Your task to perform on an android device: install app "The Home Depot" Image 0: 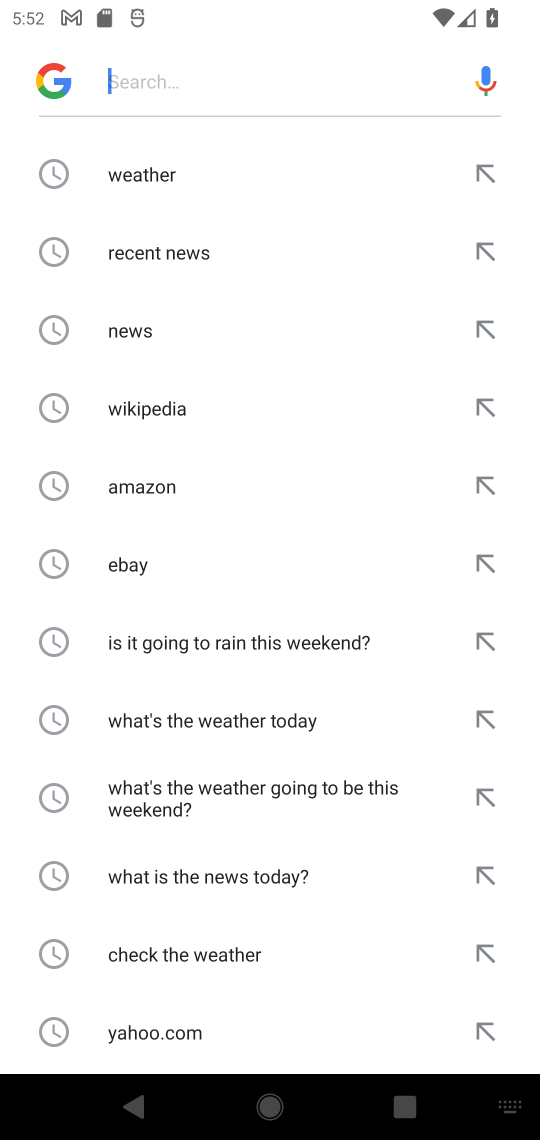
Step 0: press back button
Your task to perform on an android device: install app "The Home Depot" Image 1: 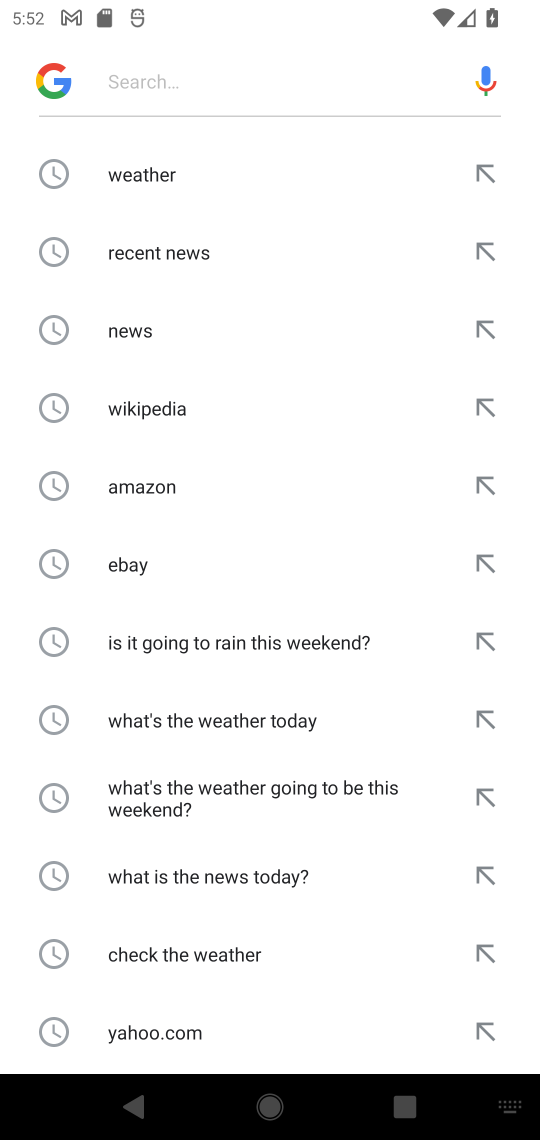
Step 1: press back button
Your task to perform on an android device: install app "The Home Depot" Image 2: 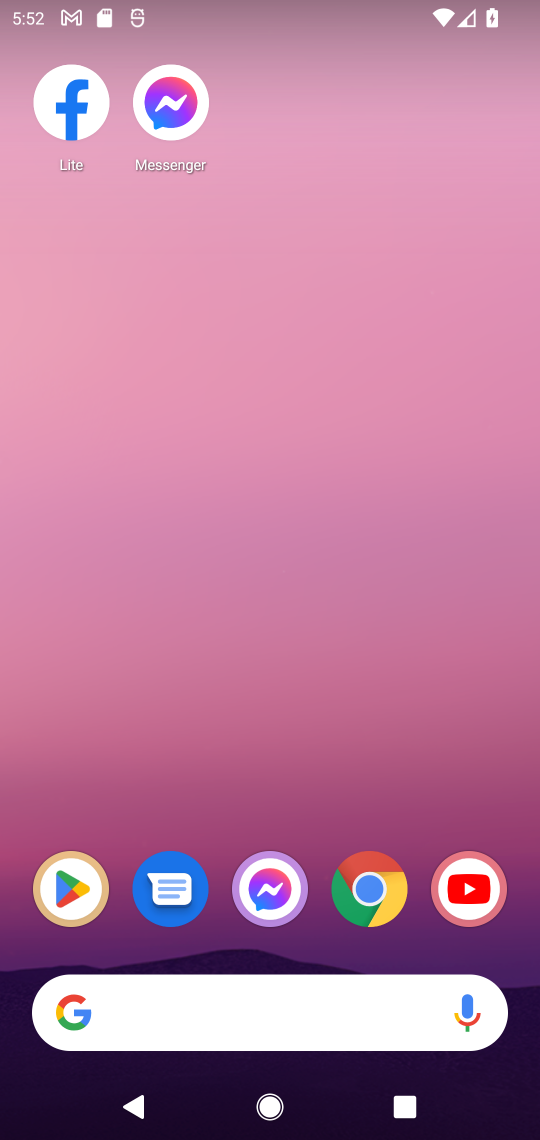
Step 2: drag from (293, 665) to (280, 150)
Your task to perform on an android device: install app "The Home Depot" Image 3: 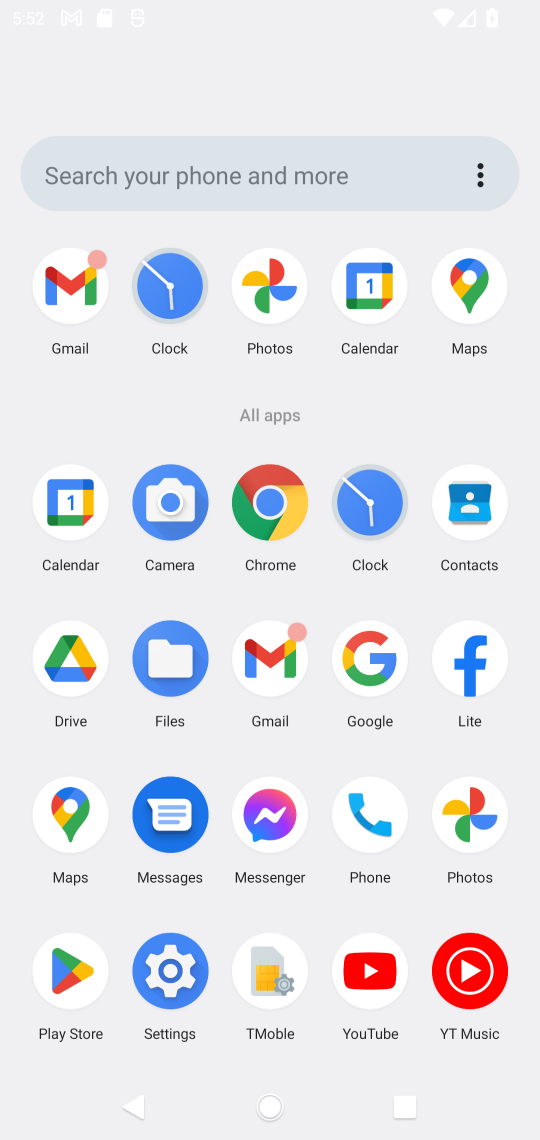
Step 3: drag from (269, 666) to (81, 74)
Your task to perform on an android device: install app "The Home Depot" Image 4: 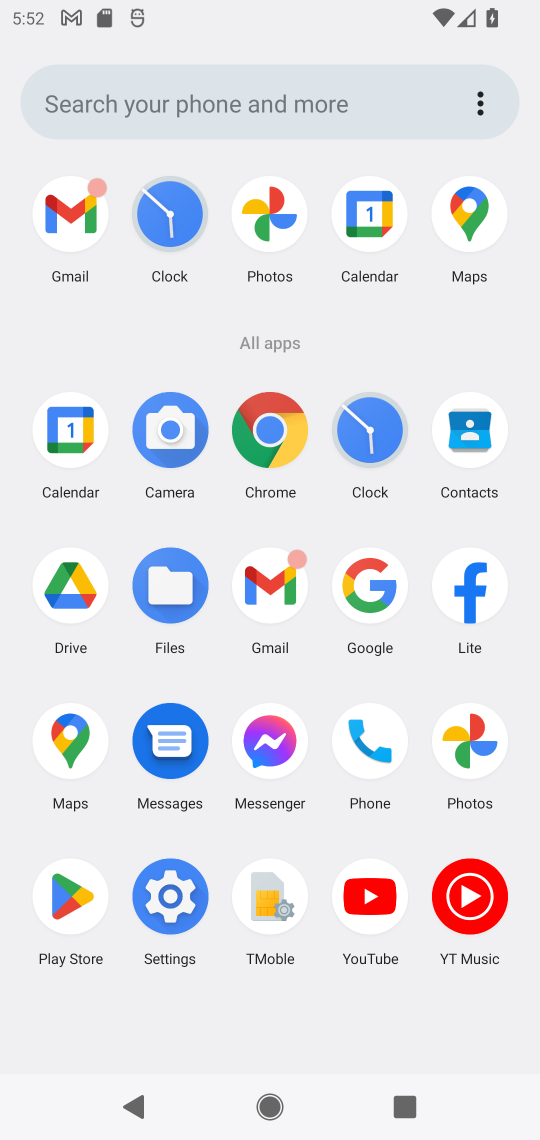
Step 4: click (108, 109)
Your task to perform on an android device: install app "The Home Depot" Image 5: 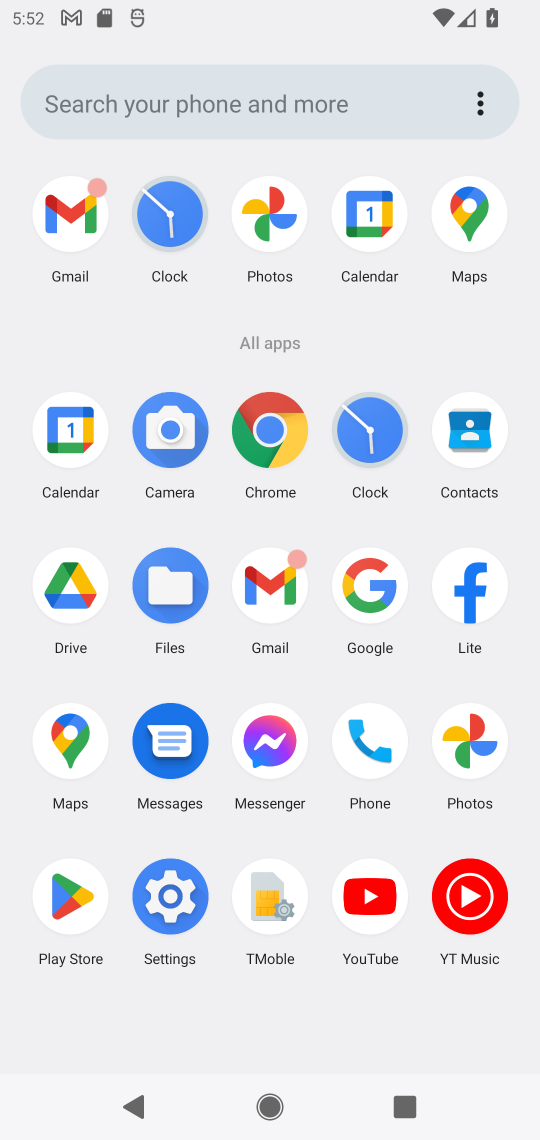
Step 5: click (134, 94)
Your task to perform on an android device: install app "The Home Depot" Image 6: 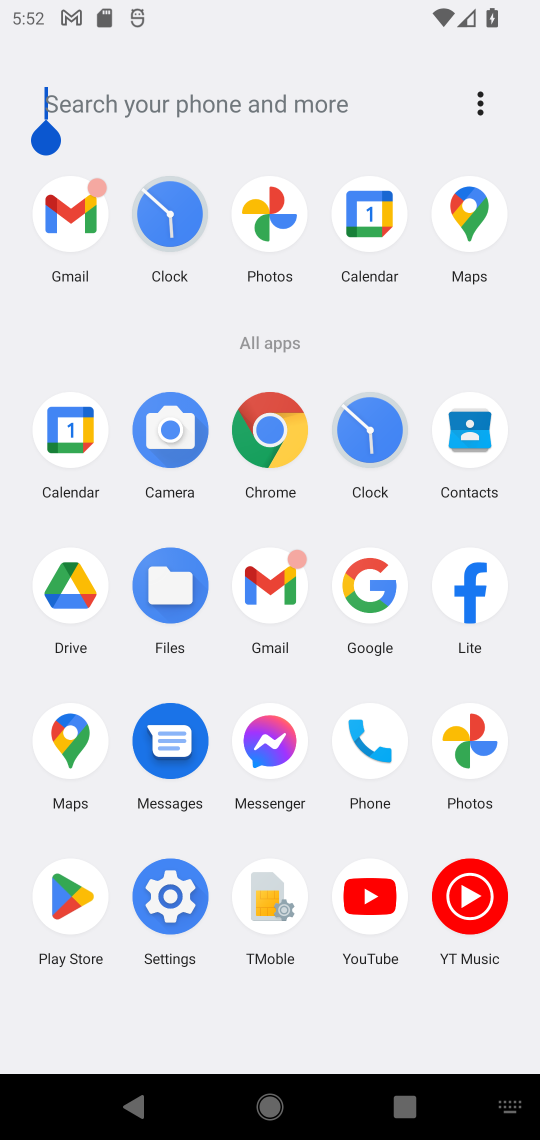
Step 6: click (86, 911)
Your task to perform on an android device: install app "The Home Depot" Image 7: 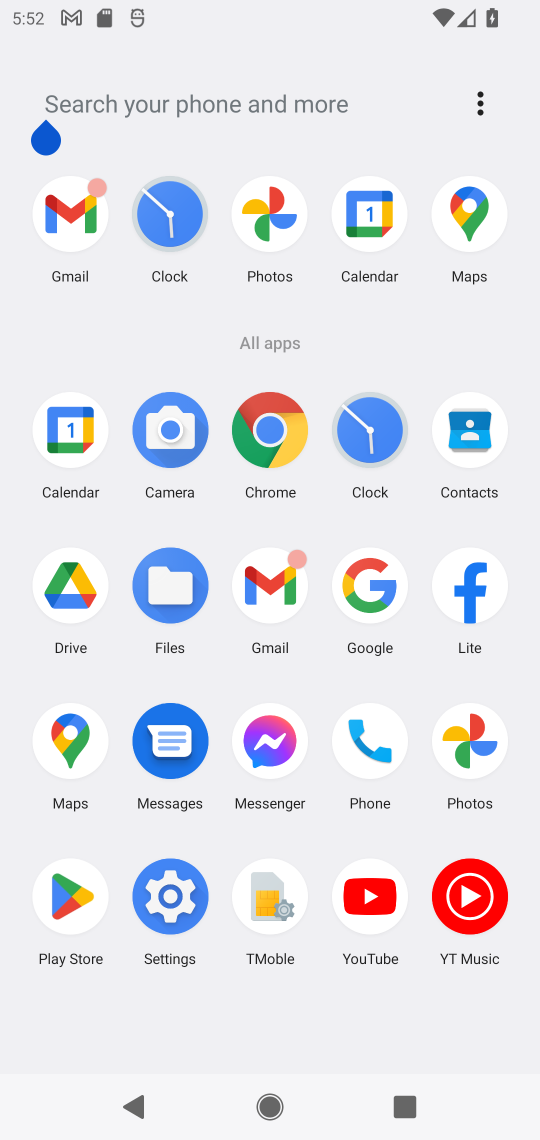
Step 7: click (57, 909)
Your task to perform on an android device: install app "The Home Depot" Image 8: 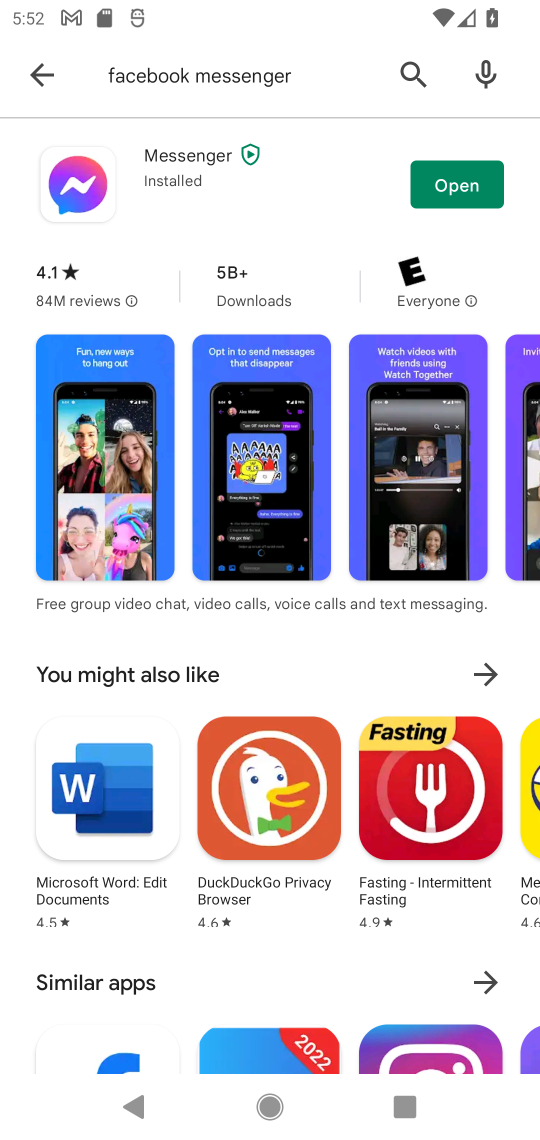
Step 8: click (44, 67)
Your task to perform on an android device: install app "The Home Depot" Image 9: 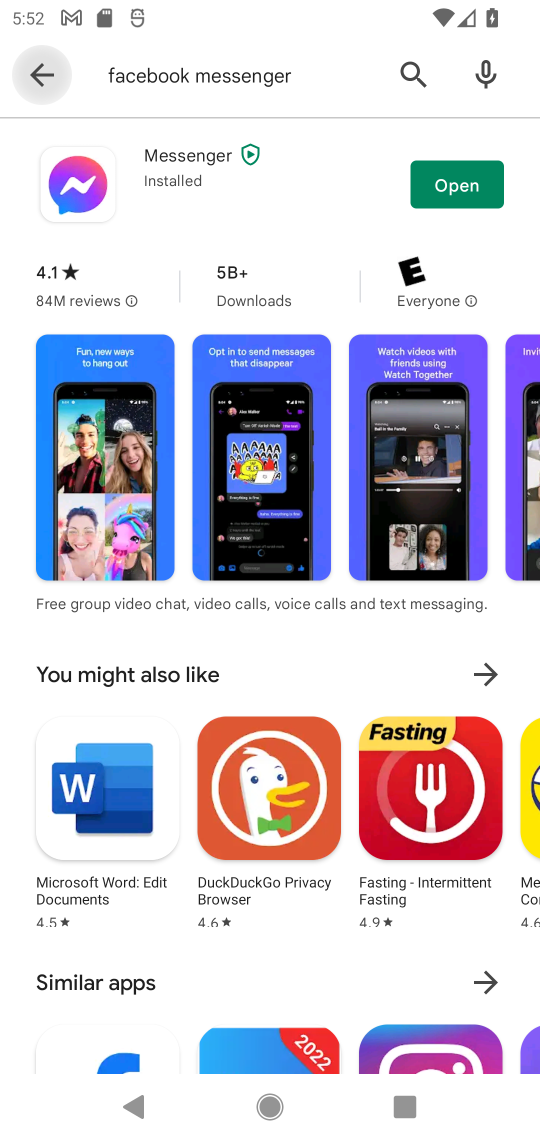
Step 9: click (121, 68)
Your task to perform on an android device: install app "The Home Depot" Image 10: 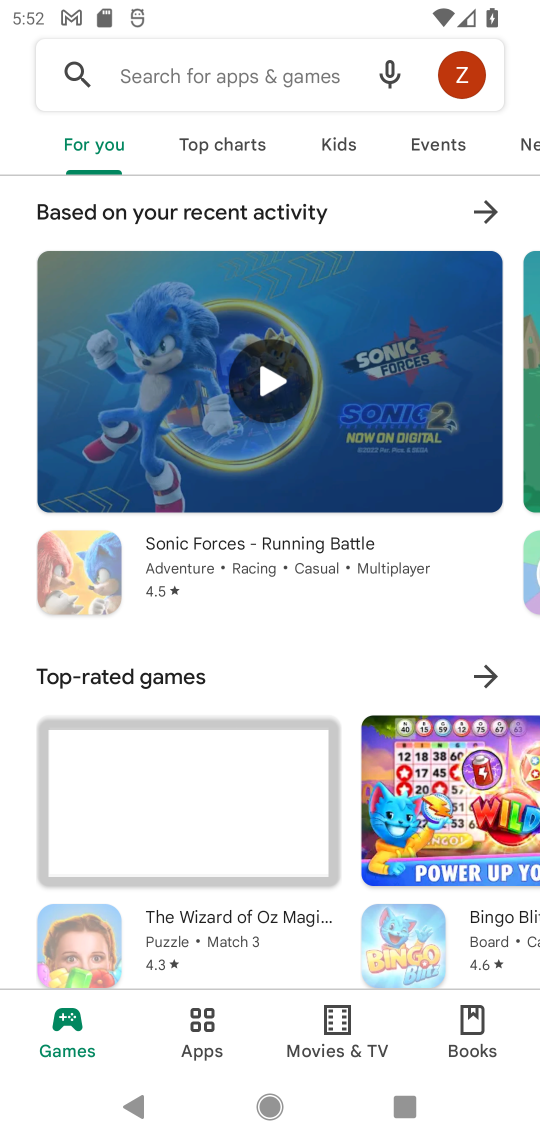
Step 10: click (123, 70)
Your task to perform on an android device: install app "The Home Depot" Image 11: 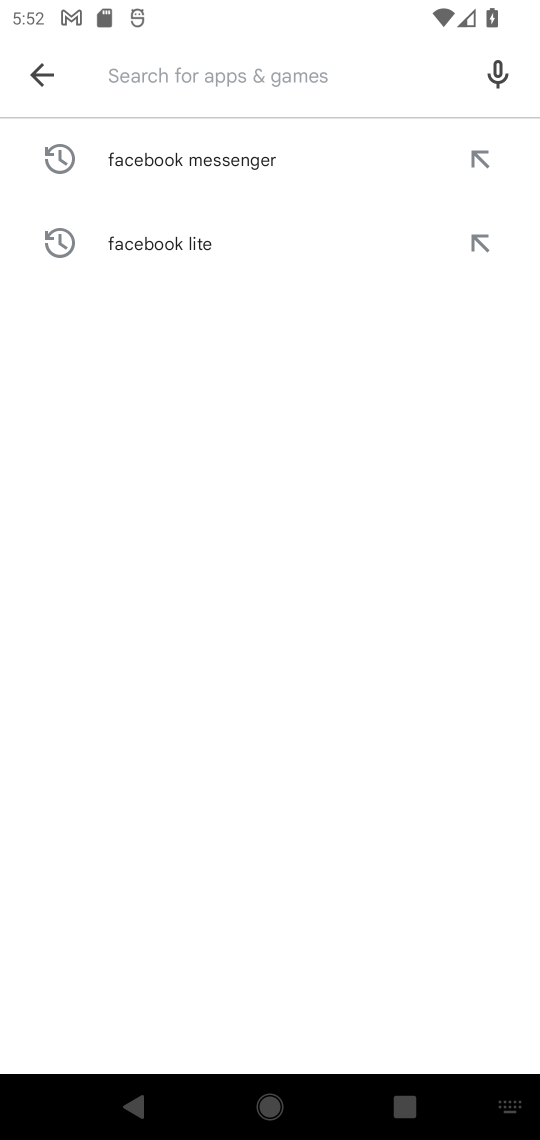
Step 11: click (146, 73)
Your task to perform on an android device: install app "The Home Depot" Image 12: 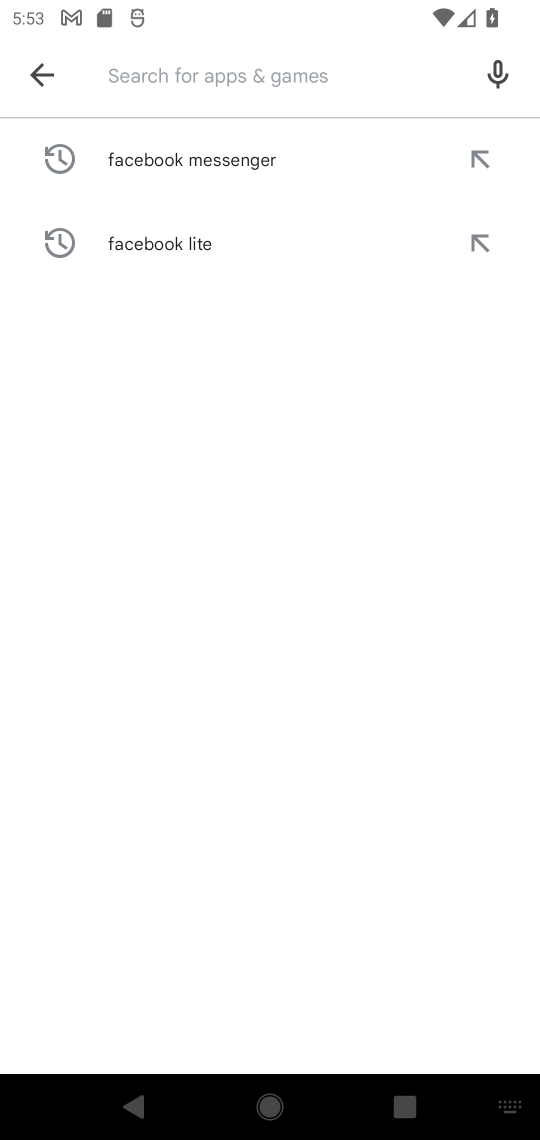
Step 12: type "The Home Depot"
Your task to perform on an android device: install app "The Home Depot" Image 13: 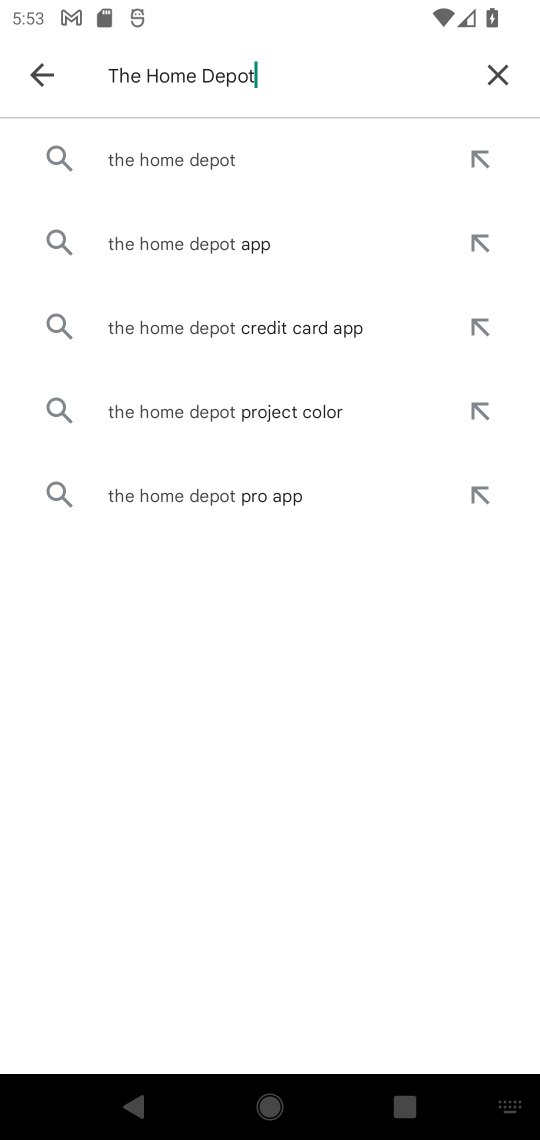
Step 13: click (169, 149)
Your task to perform on an android device: install app "The Home Depot" Image 14: 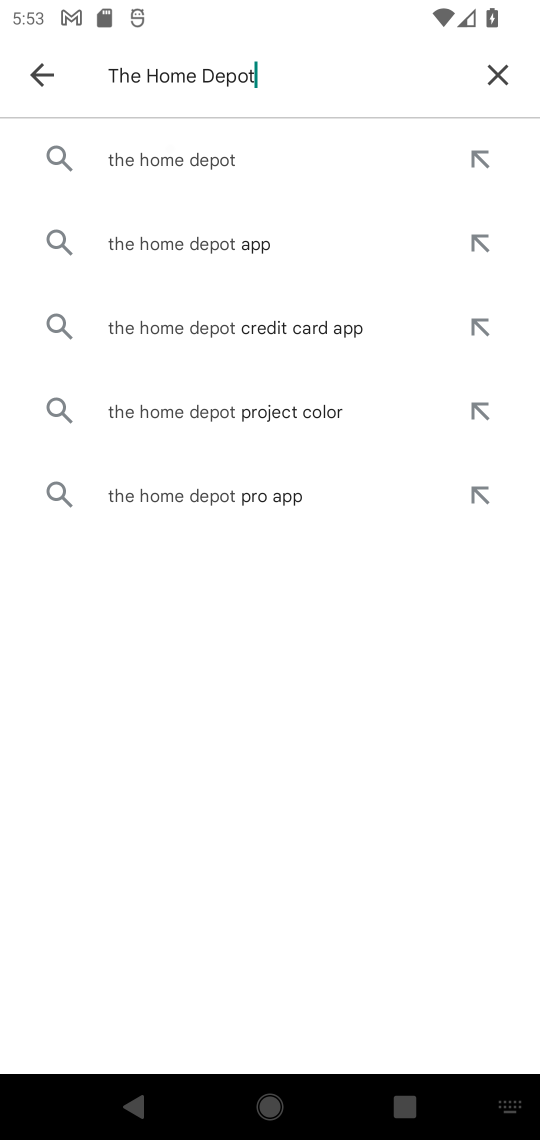
Step 14: click (168, 149)
Your task to perform on an android device: install app "The Home Depot" Image 15: 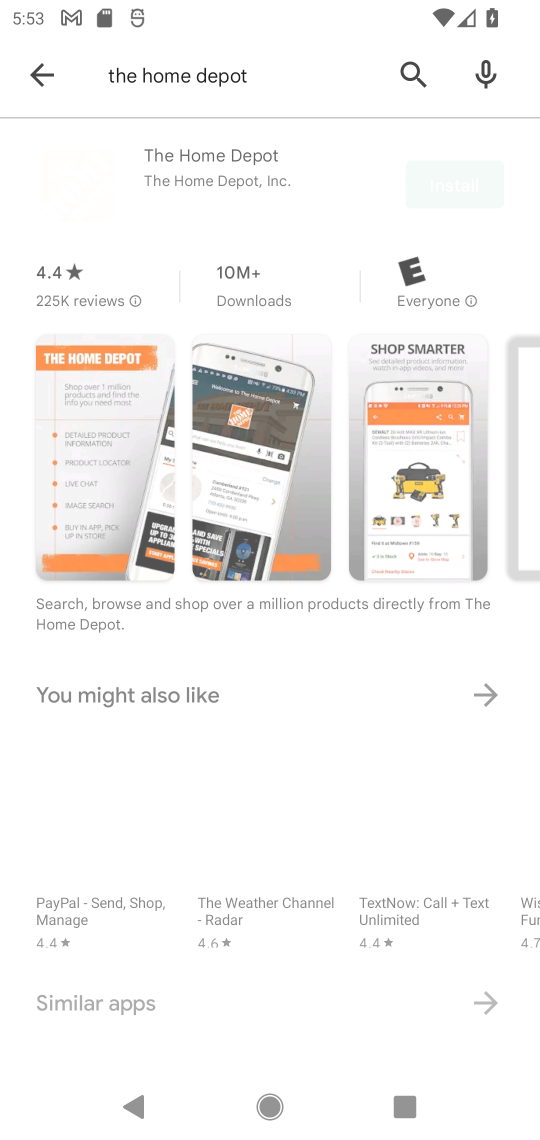
Step 15: click (167, 150)
Your task to perform on an android device: install app "The Home Depot" Image 16: 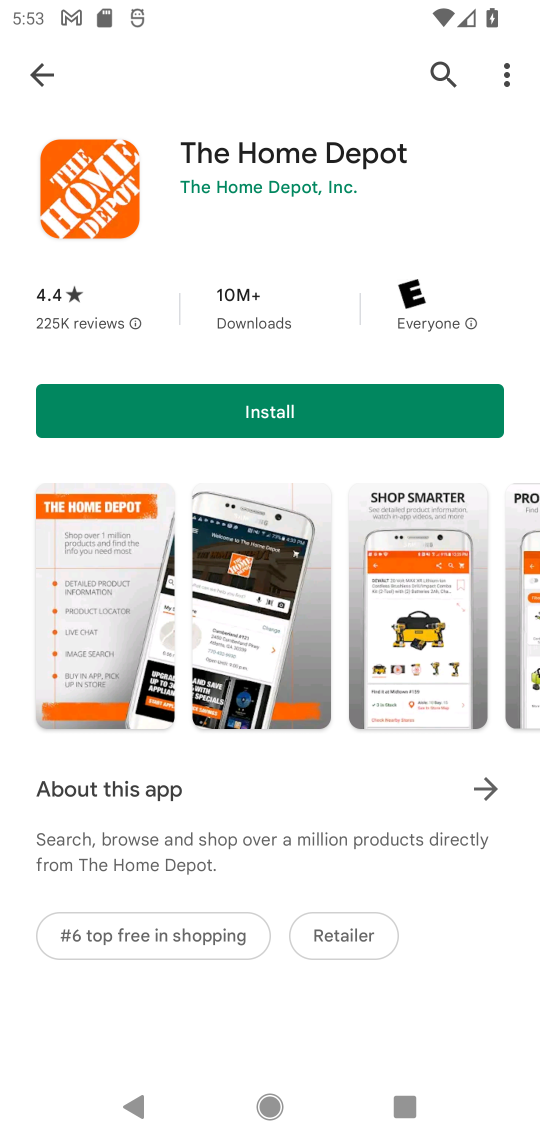
Step 16: click (485, 194)
Your task to perform on an android device: install app "The Home Depot" Image 17: 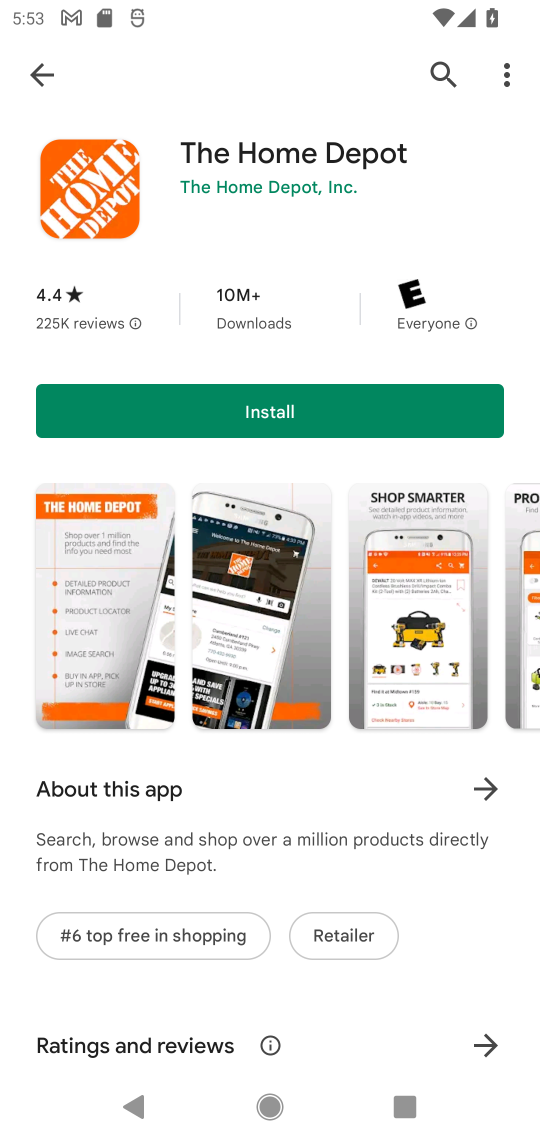
Step 17: click (293, 409)
Your task to perform on an android device: install app "The Home Depot" Image 18: 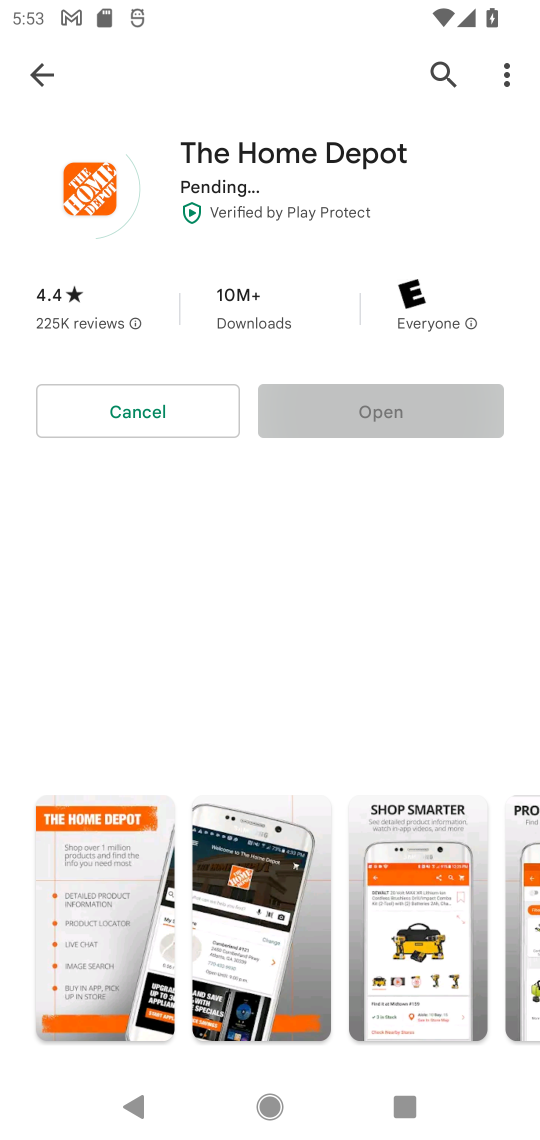
Step 18: click (291, 407)
Your task to perform on an android device: install app "The Home Depot" Image 19: 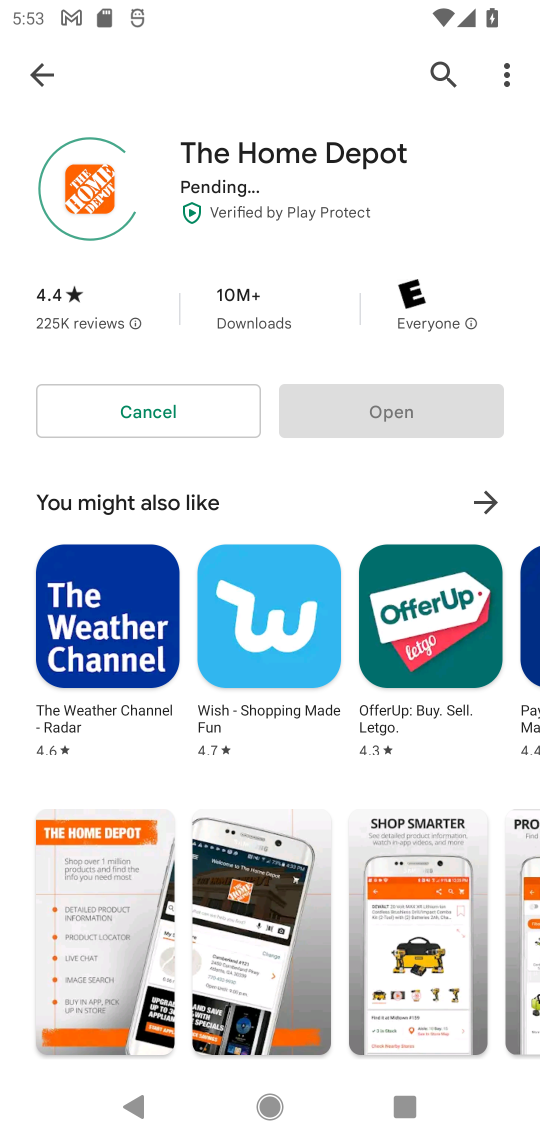
Step 19: click (291, 407)
Your task to perform on an android device: install app "The Home Depot" Image 20: 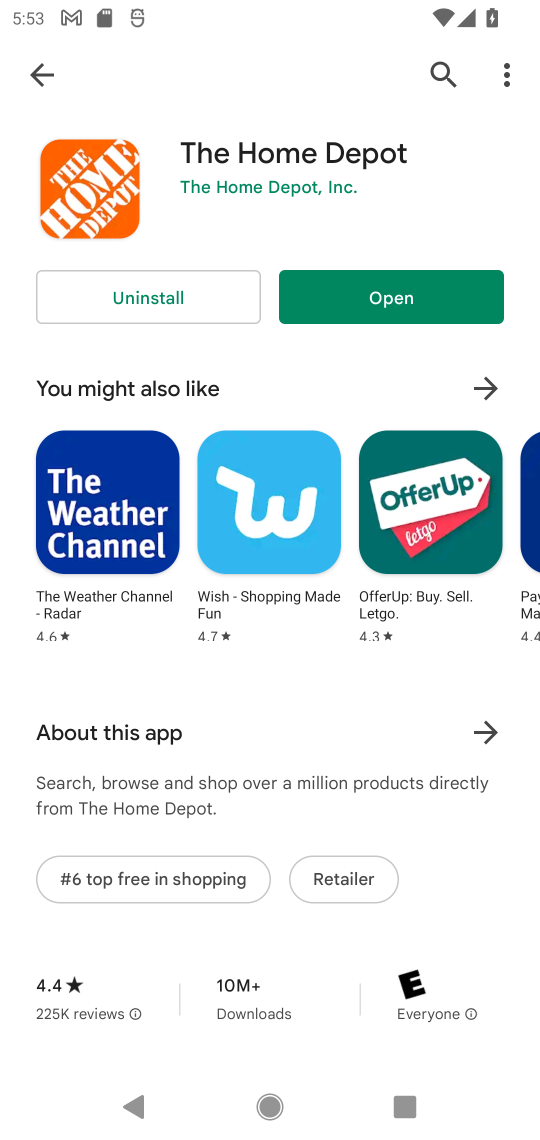
Step 20: click (434, 306)
Your task to perform on an android device: install app "The Home Depot" Image 21: 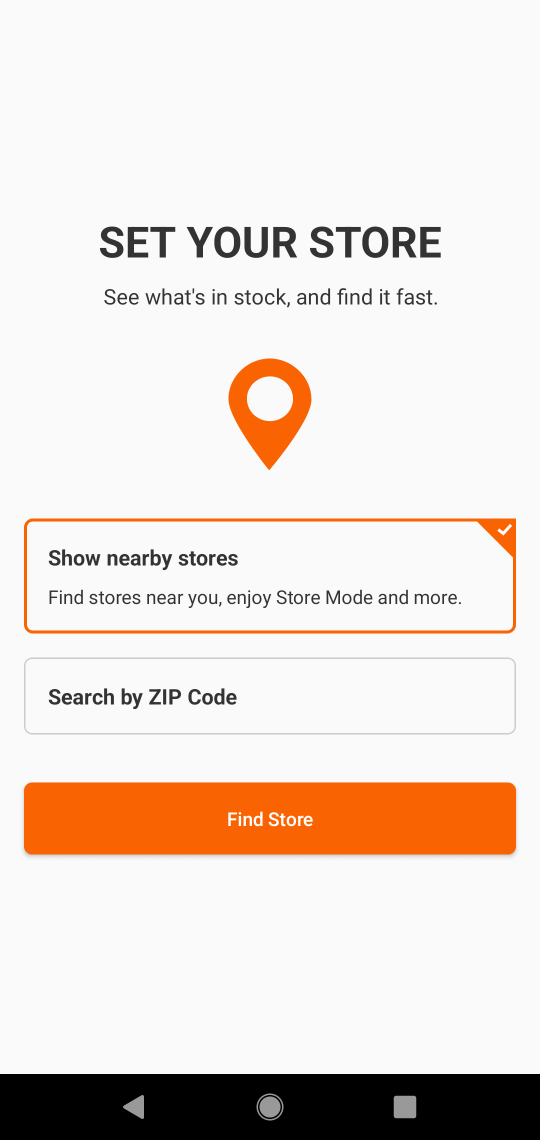
Step 21: task complete